Your task to perform on an android device: turn off location history Image 0: 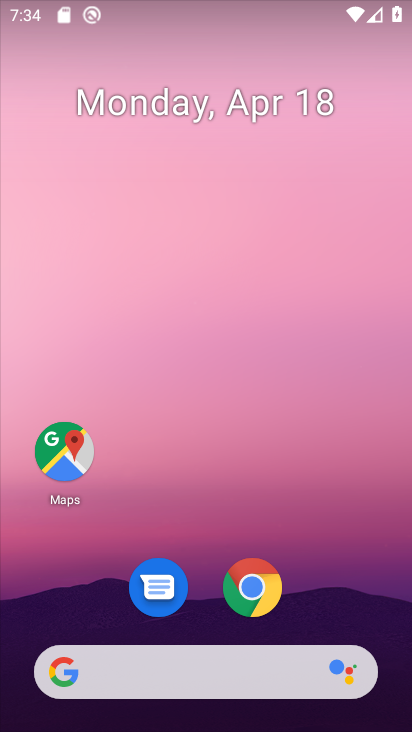
Step 0: drag from (321, 5) to (316, 693)
Your task to perform on an android device: turn off location history Image 1: 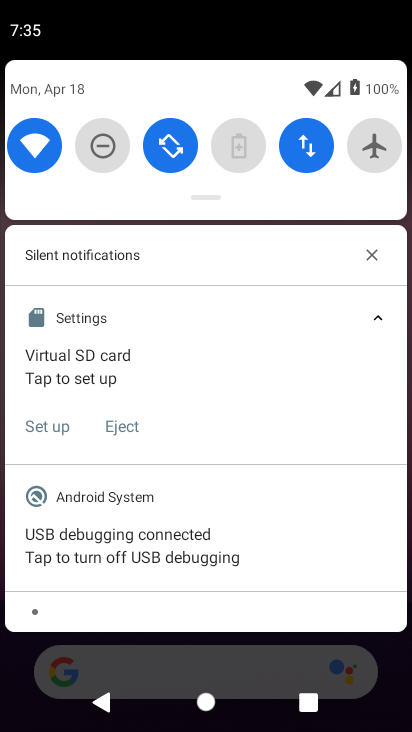
Step 1: drag from (217, 87) to (255, 631)
Your task to perform on an android device: turn off location history Image 2: 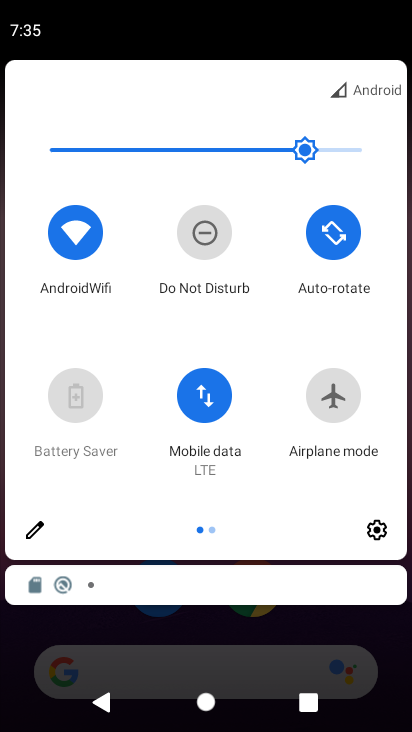
Step 2: click (386, 528)
Your task to perform on an android device: turn off location history Image 3: 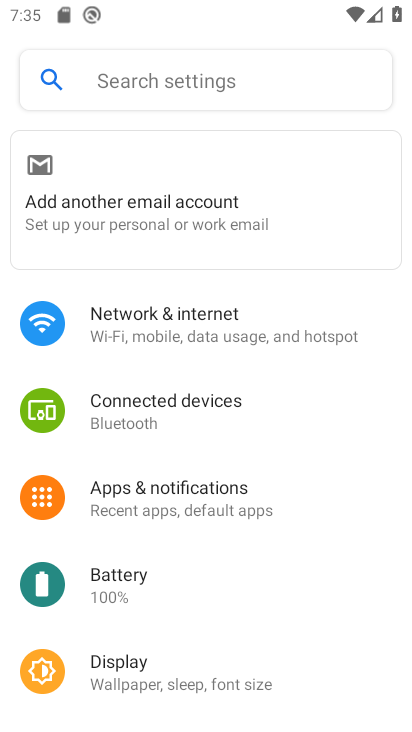
Step 3: drag from (122, 633) to (168, 135)
Your task to perform on an android device: turn off location history Image 4: 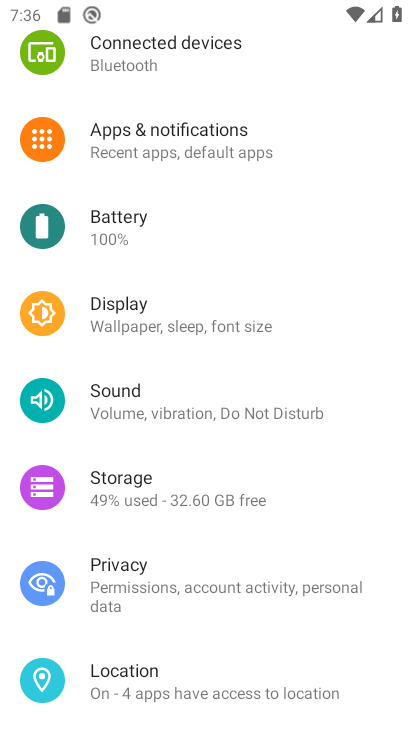
Step 4: click (196, 708)
Your task to perform on an android device: turn off location history Image 5: 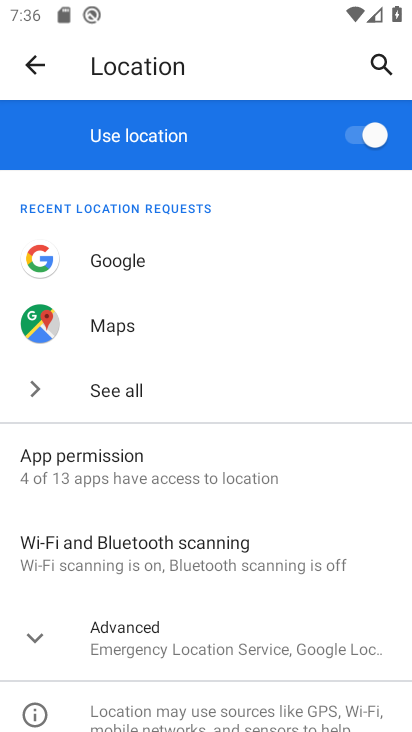
Step 5: drag from (226, 598) to (240, 238)
Your task to perform on an android device: turn off location history Image 6: 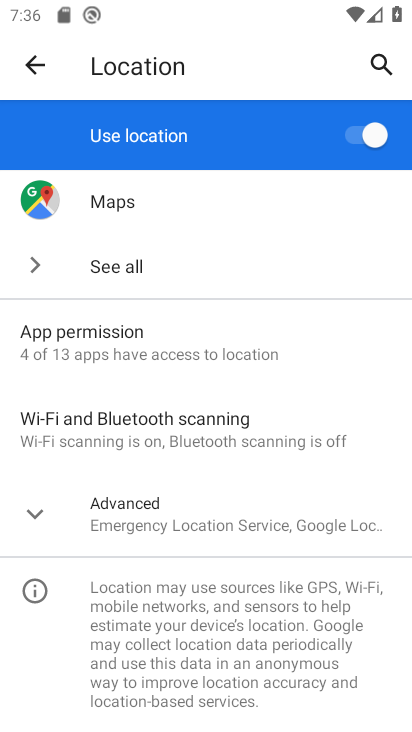
Step 6: click (212, 502)
Your task to perform on an android device: turn off location history Image 7: 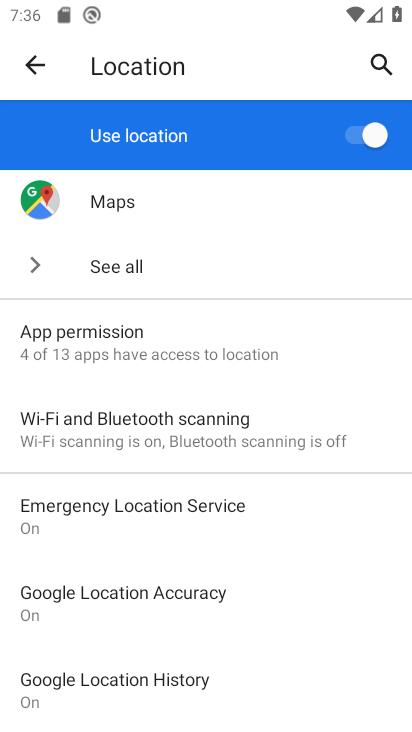
Step 7: drag from (168, 606) to (211, 227)
Your task to perform on an android device: turn off location history Image 8: 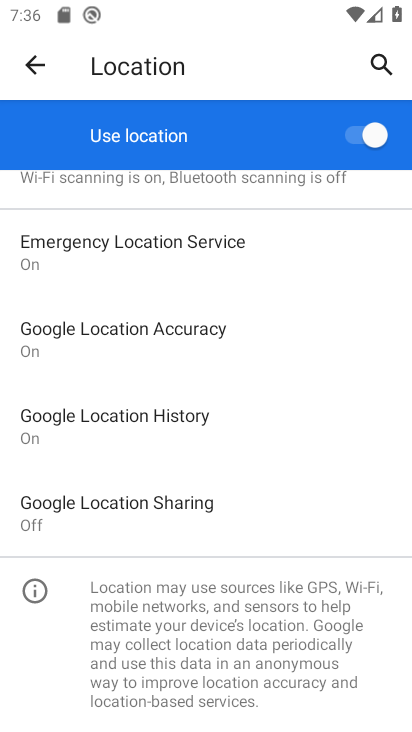
Step 8: click (179, 442)
Your task to perform on an android device: turn off location history Image 9: 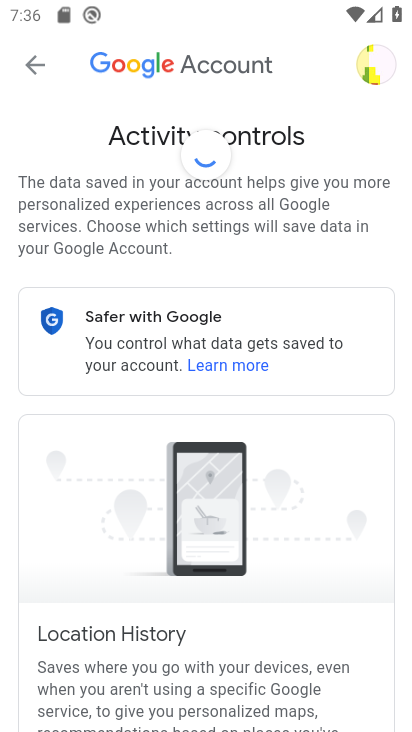
Step 9: task complete